Your task to perform on an android device: Turn on the flashlight Image 0: 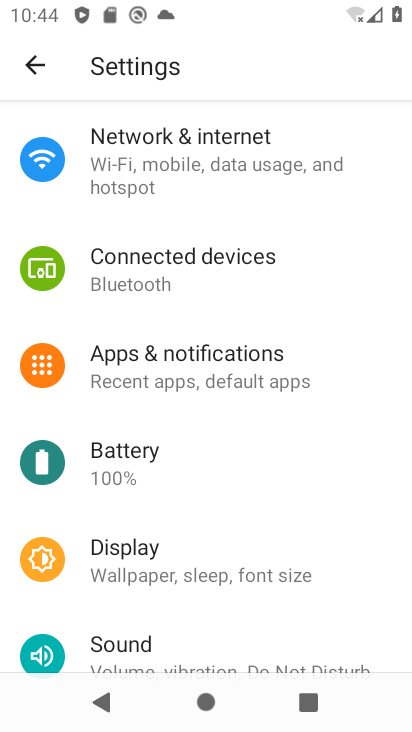
Step 0: click (249, 390)
Your task to perform on an android device: Turn on the flashlight Image 1: 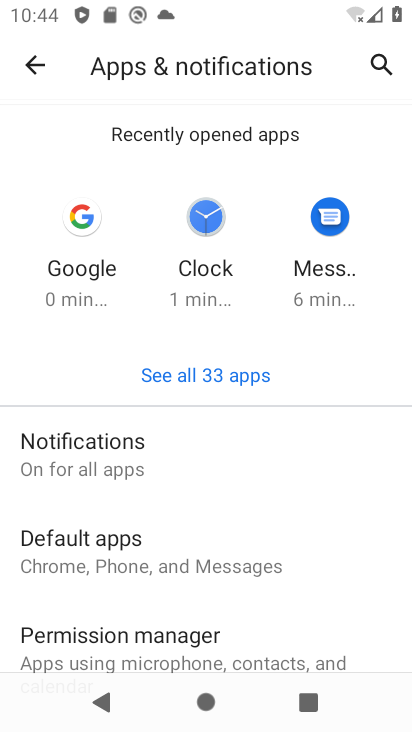
Step 1: drag from (320, 605) to (330, 229)
Your task to perform on an android device: Turn on the flashlight Image 2: 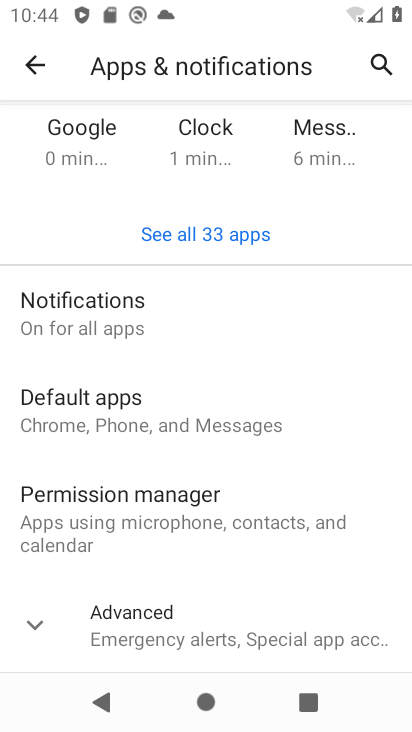
Step 2: click (207, 625)
Your task to perform on an android device: Turn on the flashlight Image 3: 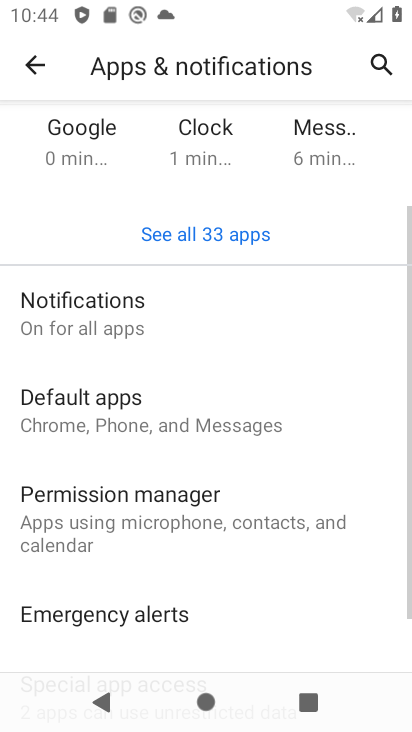
Step 3: drag from (313, 593) to (321, 185)
Your task to perform on an android device: Turn on the flashlight Image 4: 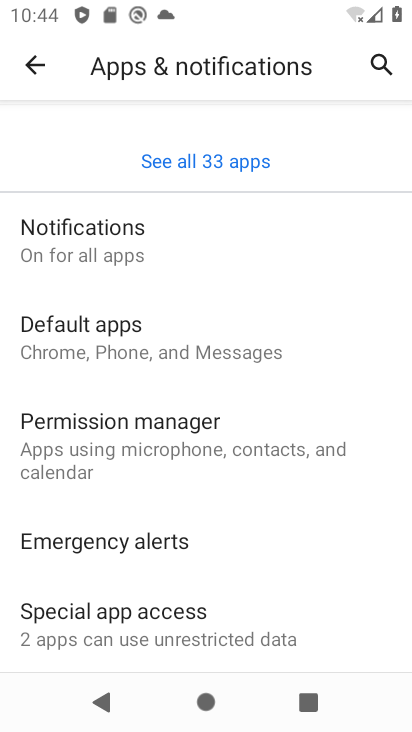
Step 4: click (188, 633)
Your task to perform on an android device: Turn on the flashlight Image 5: 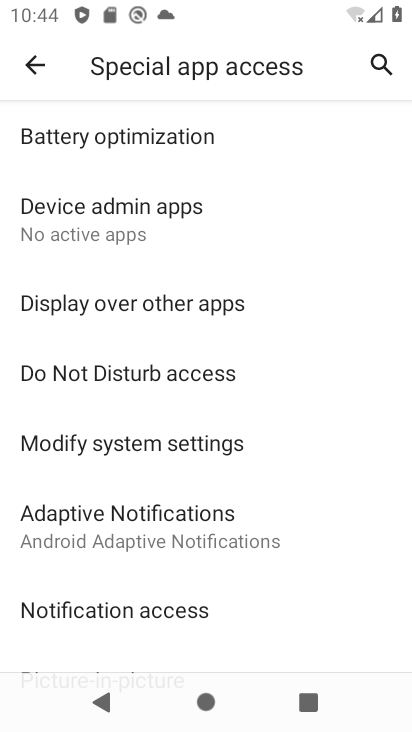
Step 5: task complete